Your task to perform on an android device: Open calendar and show me the third week of next month Image 0: 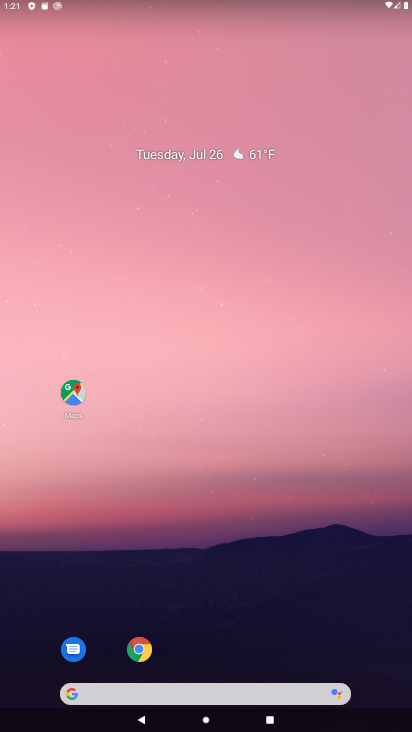
Step 0: drag from (239, 627) to (258, 159)
Your task to perform on an android device: Open calendar and show me the third week of next month Image 1: 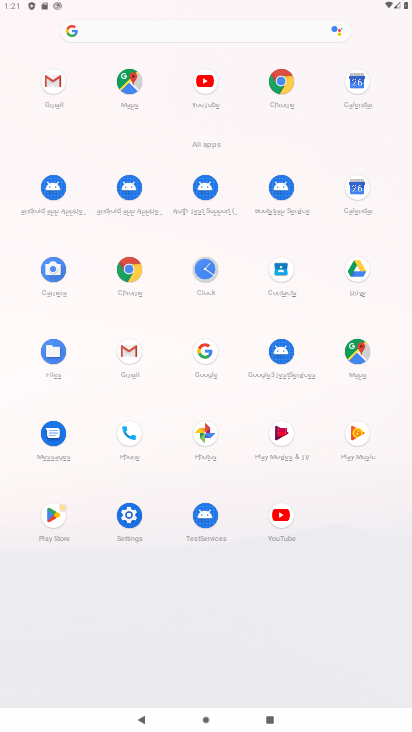
Step 1: click (364, 193)
Your task to perform on an android device: Open calendar and show me the third week of next month Image 2: 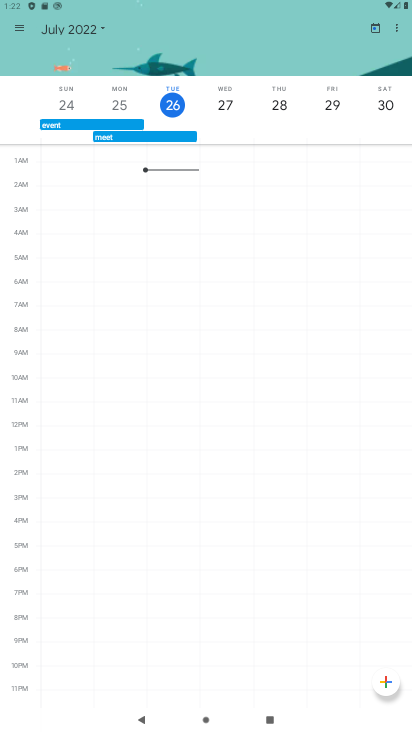
Step 2: click (59, 31)
Your task to perform on an android device: Open calendar and show me the third week of next month Image 3: 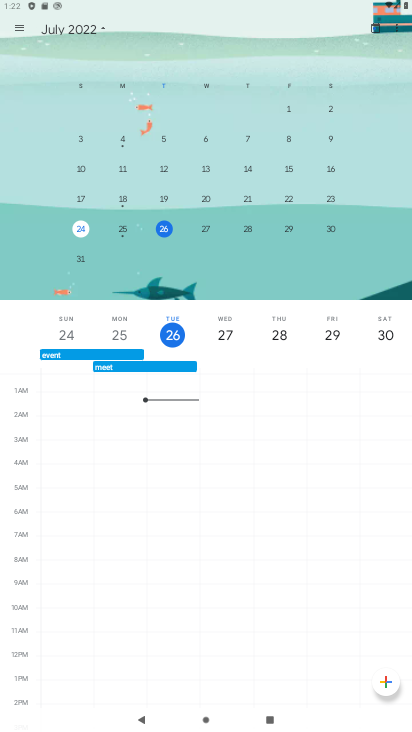
Step 3: drag from (262, 192) to (23, 195)
Your task to perform on an android device: Open calendar and show me the third week of next month Image 4: 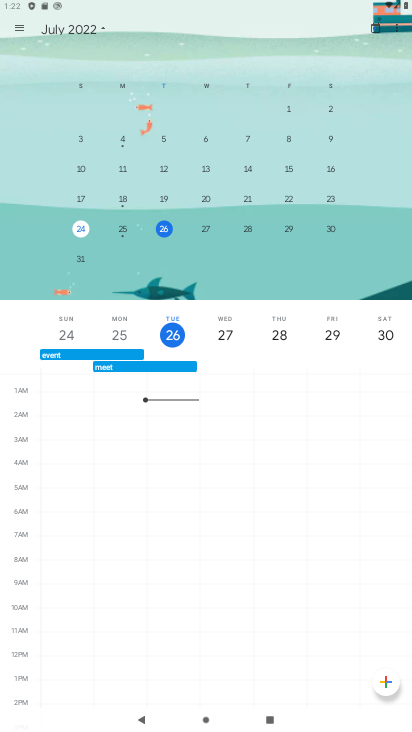
Step 4: drag from (274, 147) to (58, 132)
Your task to perform on an android device: Open calendar and show me the third week of next month Image 5: 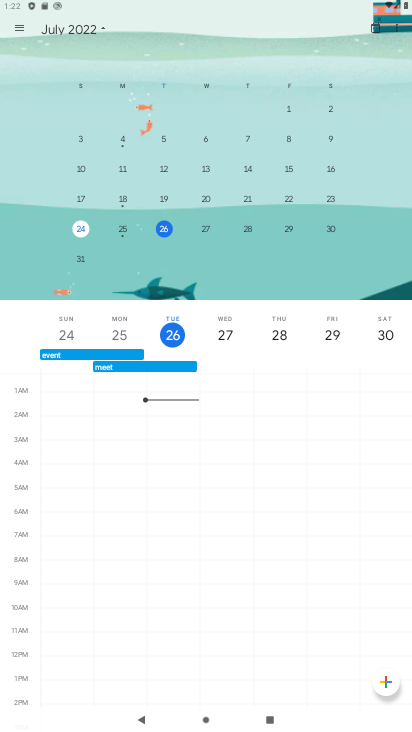
Step 5: drag from (283, 153) to (87, 138)
Your task to perform on an android device: Open calendar and show me the third week of next month Image 6: 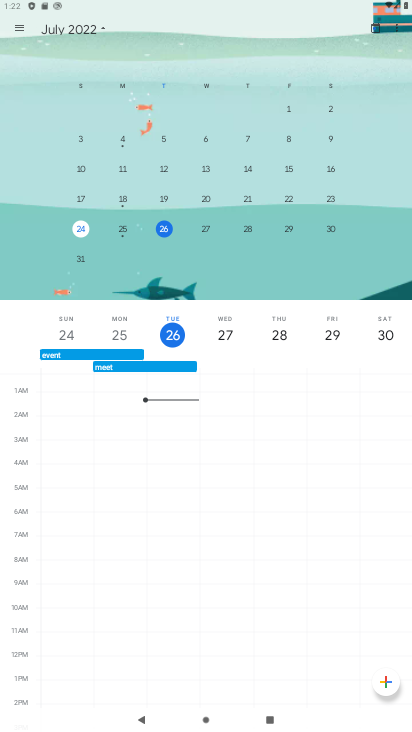
Step 6: drag from (298, 157) to (10, 157)
Your task to perform on an android device: Open calendar and show me the third week of next month Image 7: 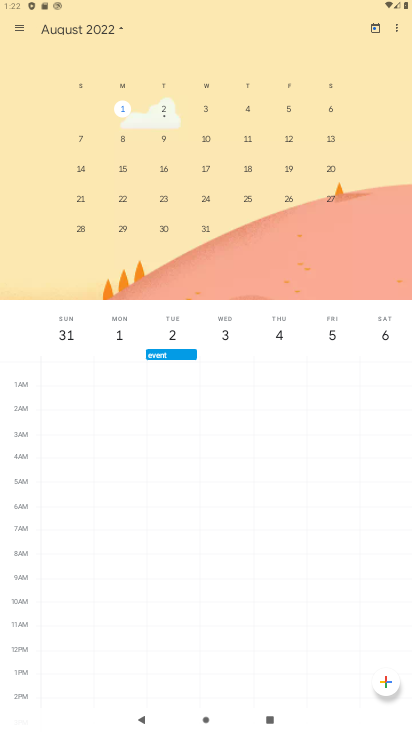
Step 7: click (82, 169)
Your task to perform on an android device: Open calendar and show me the third week of next month Image 8: 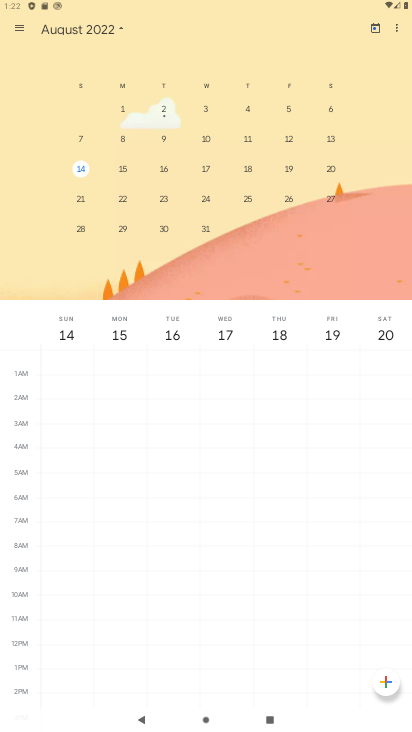
Step 8: task complete